Your task to perform on an android device: toggle airplane mode Image 0: 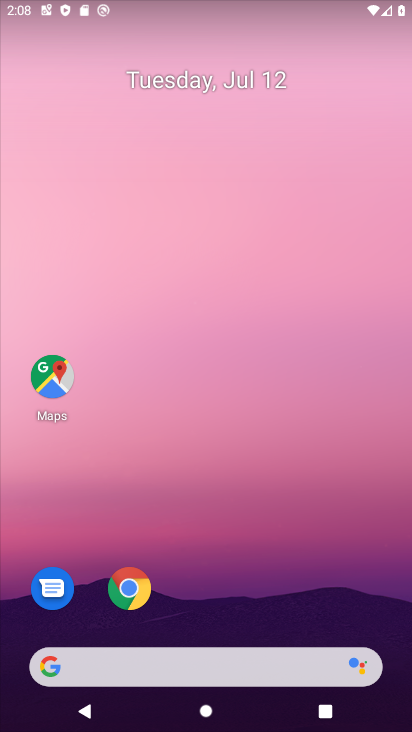
Step 0: drag from (209, 657) to (158, 228)
Your task to perform on an android device: toggle airplane mode Image 1: 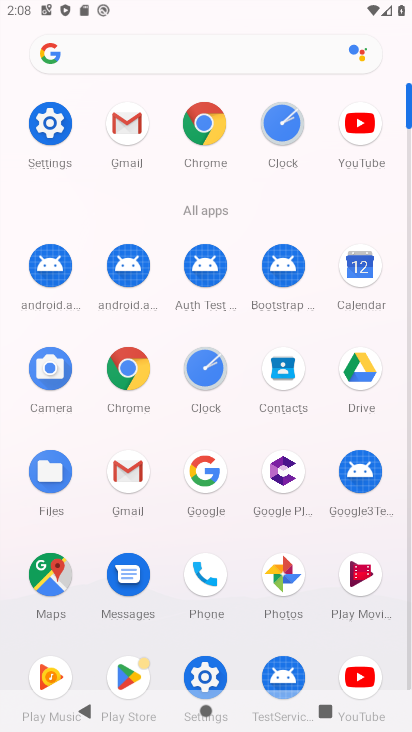
Step 1: click (40, 141)
Your task to perform on an android device: toggle airplane mode Image 2: 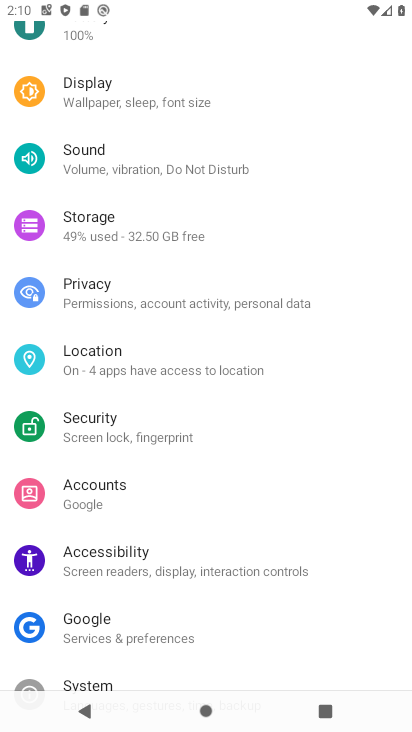
Step 2: drag from (101, 141) to (127, 666)
Your task to perform on an android device: toggle airplane mode Image 3: 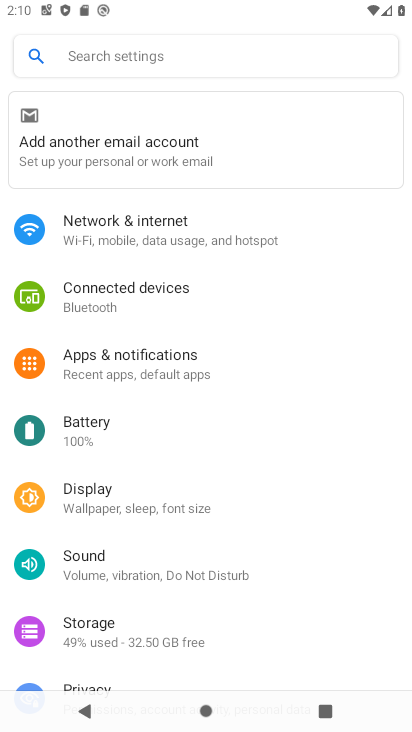
Step 3: click (115, 225)
Your task to perform on an android device: toggle airplane mode Image 4: 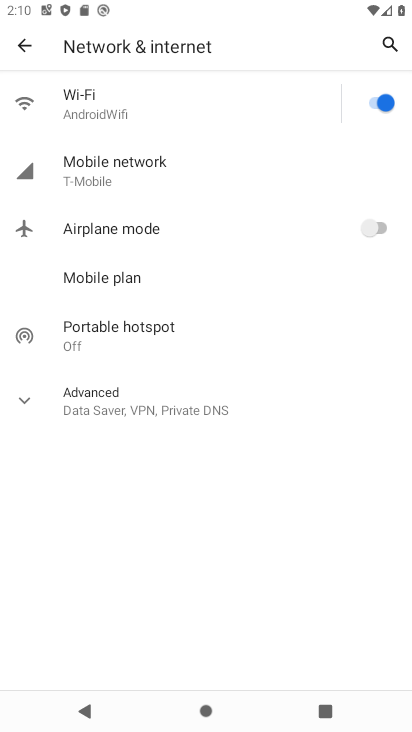
Step 4: click (380, 225)
Your task to perform on an android device: toggle airplane mode Image 5: 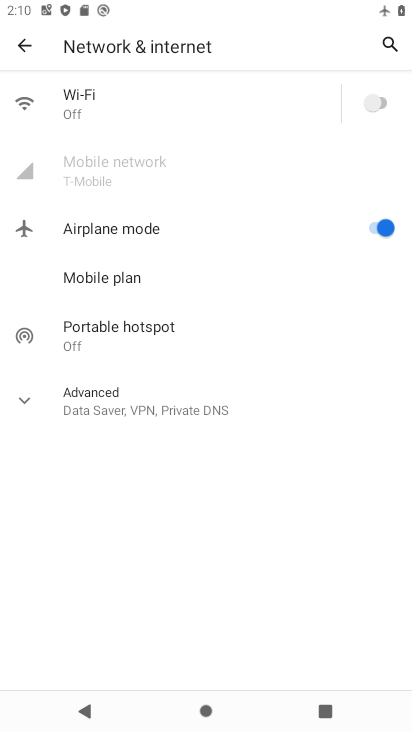
Step 5: task complete